Your task to perform on an android device: search for starred emails in the gmail app Image 0: 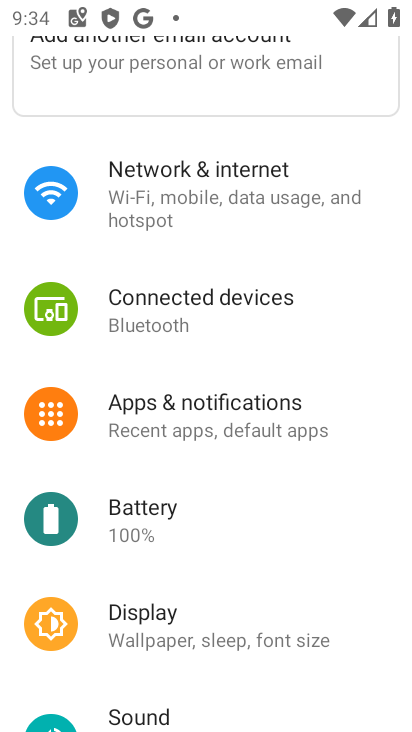
Step 0: press home button
Your task to perform on an android device: search for starred emails in the gmail app Image 1: 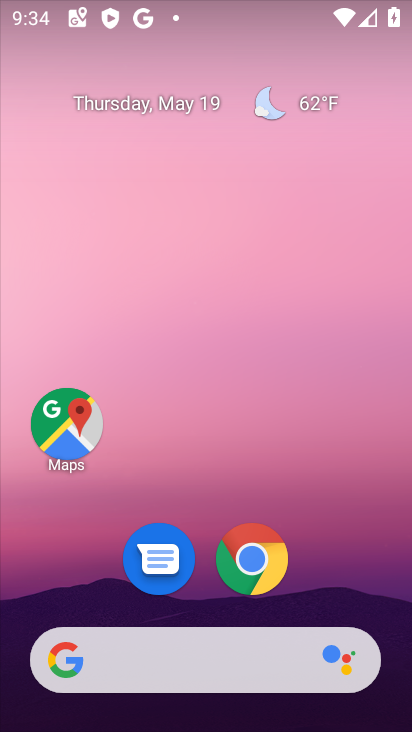
Step 1: drag from (290, 474) to (268, 126)
Your task to perform on an android device: search for starred emails in the gmail app Image 2: 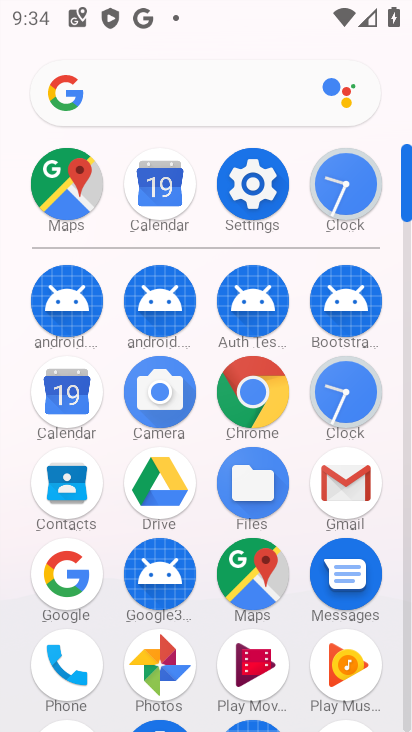
Step 2: click (352, 495)
Your task to perform on an android device: search for starred emails in the gmail app Image 3: 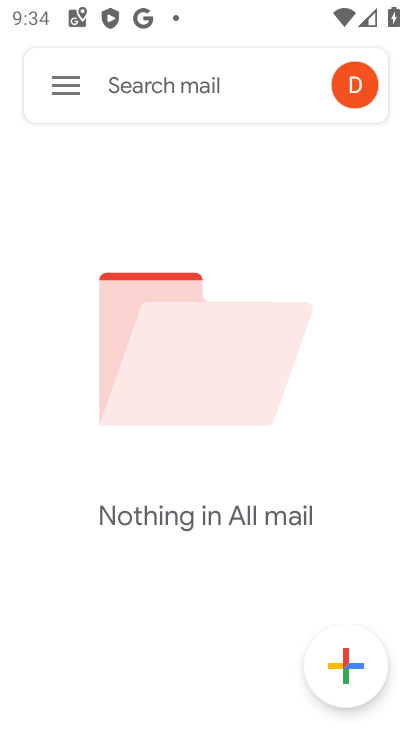
Step 3: click (55, 77)
Your task to perform on an android device: search for starred emails in the gmail app Image 4: 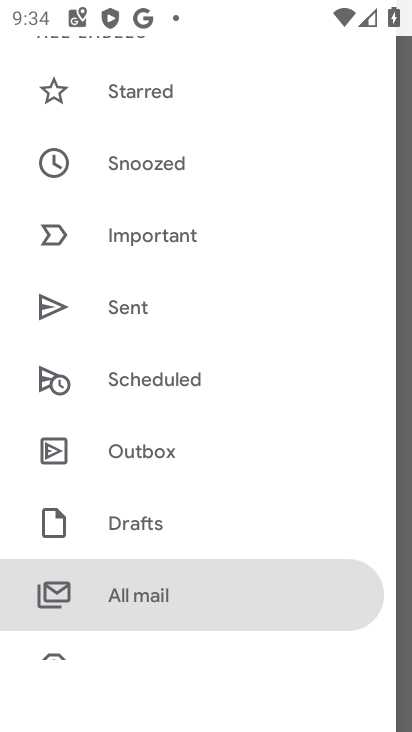
Step 4: drag from (138, 216) to (183, 591)
Your task to perform on an android device: search for starred emails in the gmail app Image 5: 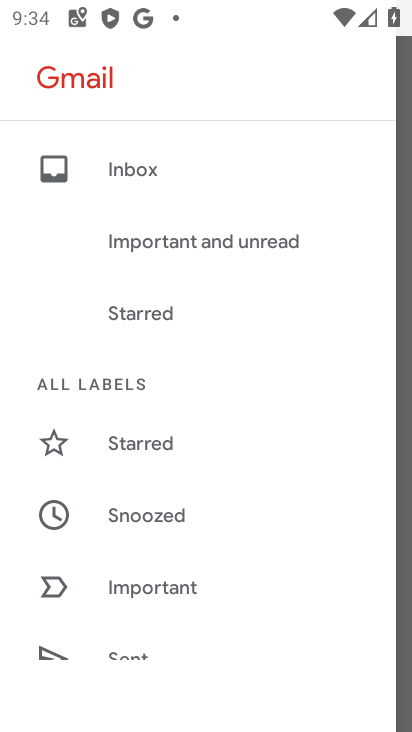
Step 5: click (162, 455)
Your task to perform on an android device: search for starred emails in the gmail app Image 6: 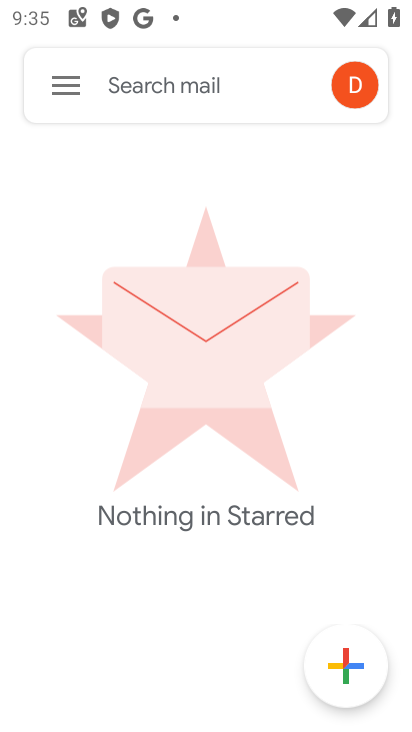
Step 6: task complete